Your task to perform on an android device: Open calendar and show me the fourth week of next month Image 0: 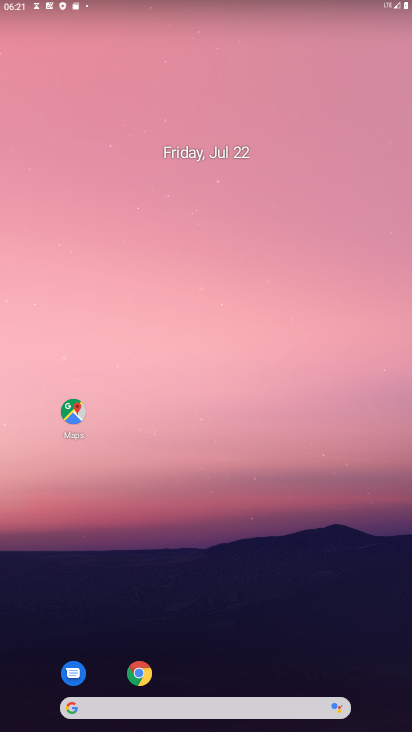
Step 0: press home button
Your task to perform on an android device: Open calendar and show me the fourth week of next month Image 1: 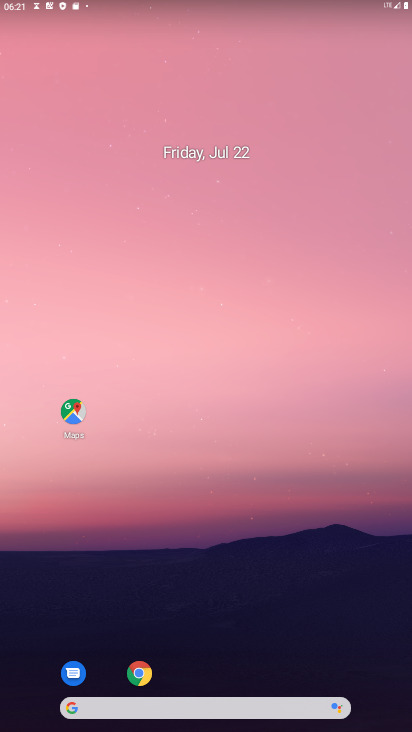
Step 1: drag from (216, 651) to (322, 154)
Your task to perform on an android device: Open calendar and show me the fourth week of next month Image 2: 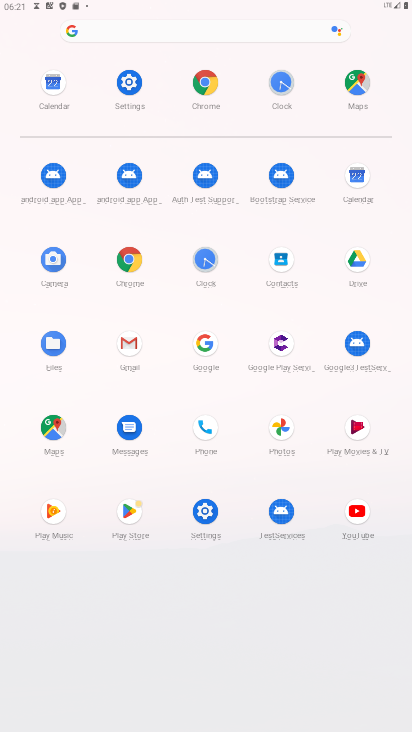
Step 2: click (349, 178)
Your task to perform on an android device: Open calendar and show me the fourth week of next month Image 3: 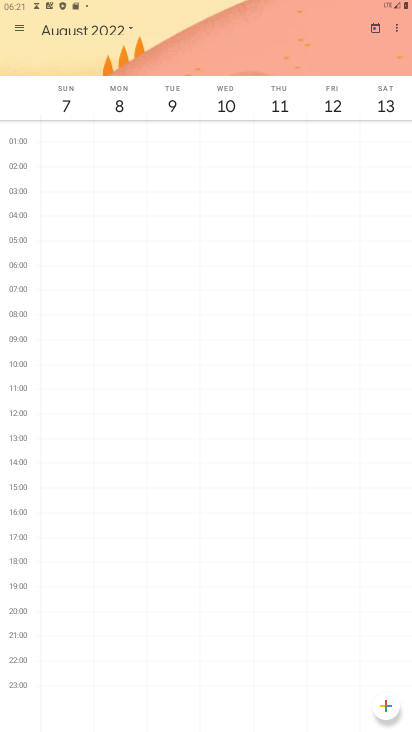
Step 3: click (19, 24)
Your task to perform on an android device: Open calendar and show me the fourth week of next month Image 4: 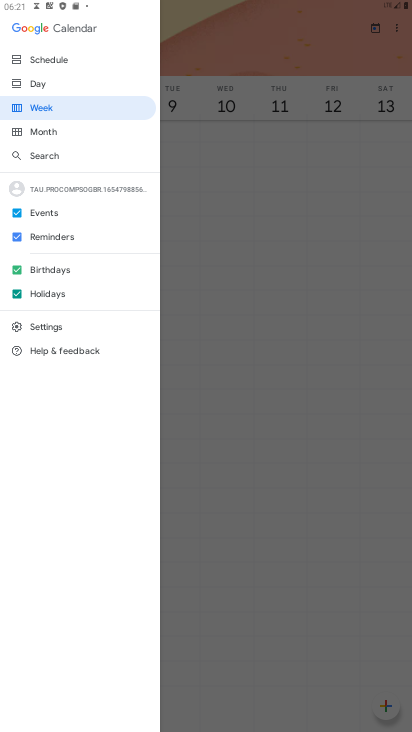
Step 4: click (45, 97)
Your task to perform on an android device: Open calendar and show me the fourth week of next month Image 5: 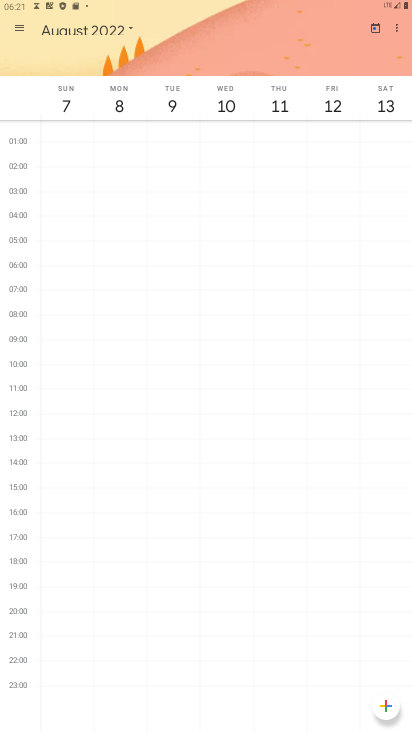
Step 5: task complete